Your task to perform on an android device: Go to privacy settings Image 0: 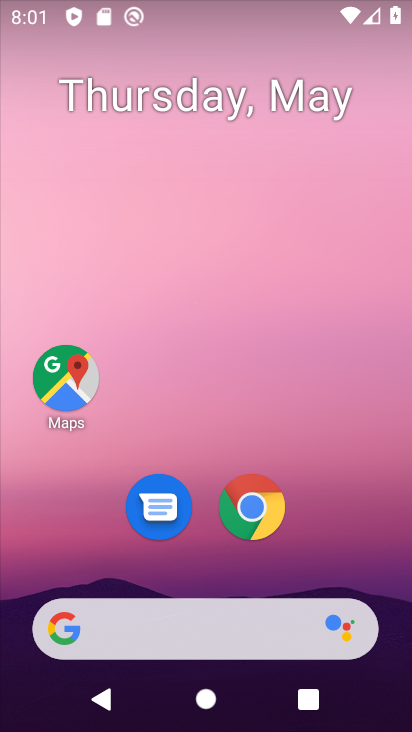
Step 0: drag from (331, 570) to (255, 155)
Your task to perform on an android device: Go to privacy settings Image 1: 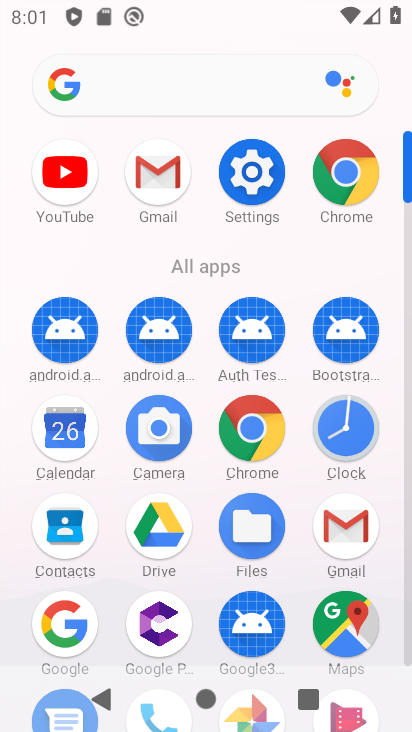
Step 1: click (253, 163)
Your task to perform on an android device: Go to privacy settings Image 2: 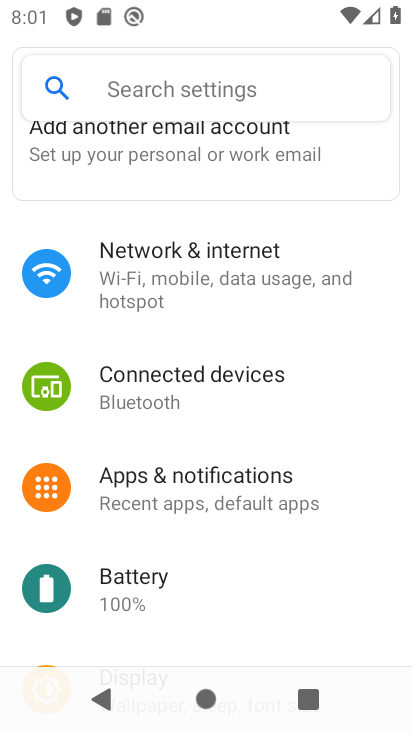
Step 2: drag from (246, 564) to (231, 198)
Your task to perform on an android device: Go to privacy settings Image 3: 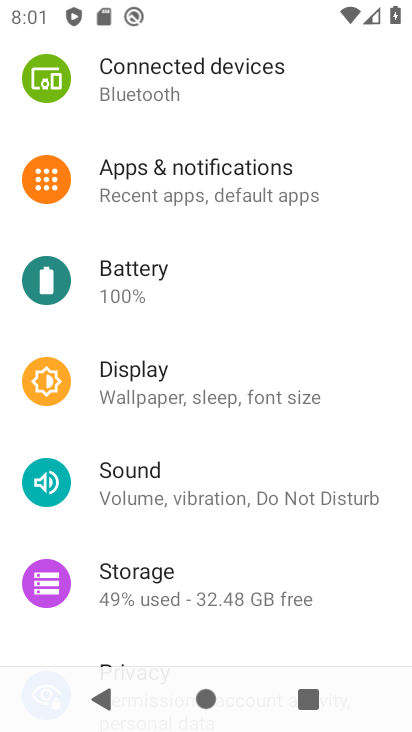
Step 3: drag from (299, 531) to (241, 171)
Your task to perform on an android device: Go to privacy settings Image 4: 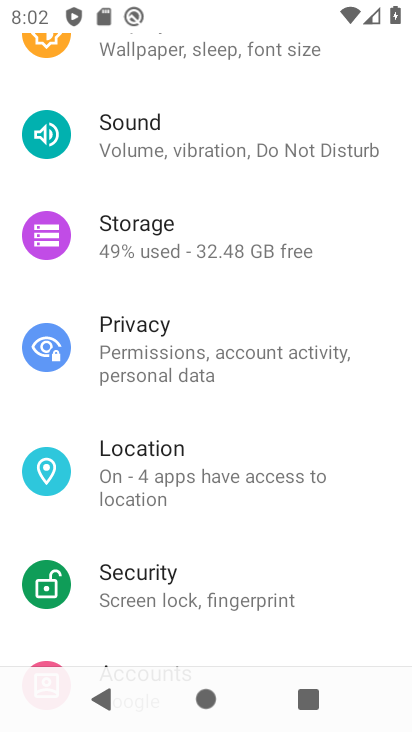
Step 4: click (302, 360)
Your task to perform on an android device: Go to privacy settings Image 5: 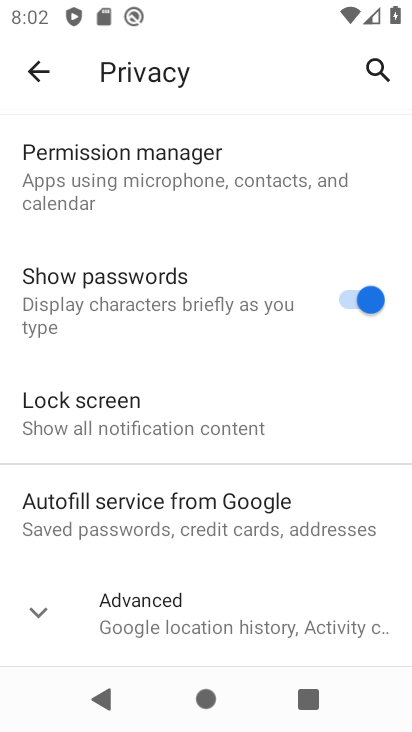
Step 5: task complete